Your task to perform on an android device: Open Chrome and go to settings Image 0: 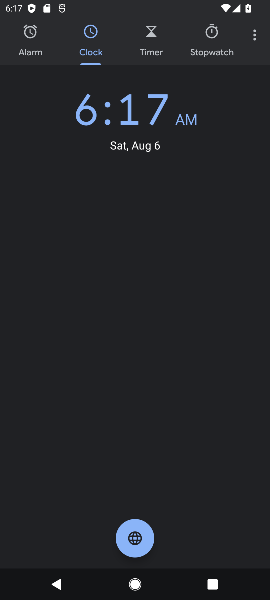
Step 0: press home button
Your task to perform on an android device: Open Chrome and go to settings Image 1: 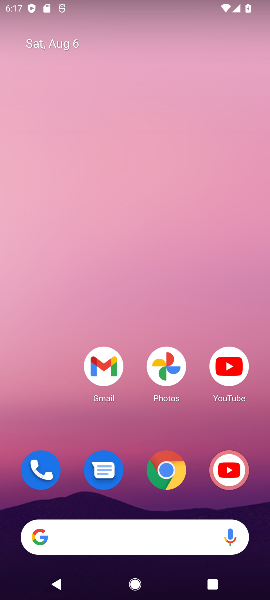
Step 1: drag from (133, 500) to (248, 11)
Your task to perform on an android device: Open Chrome and go to settings Image 2: 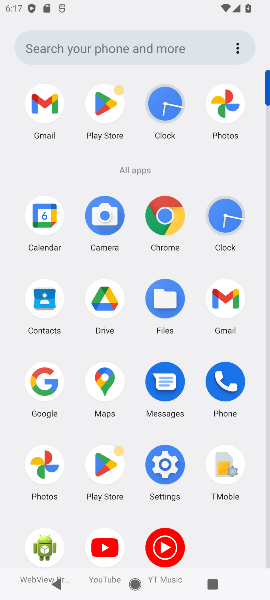
Step 2: click (168, 219)
Your task to perform on an android device: Open Chrome and go to settings Image 3: 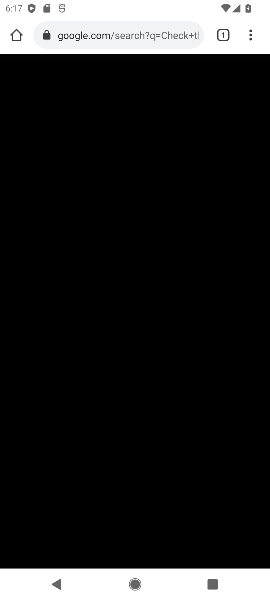
Step 3: task complete